Your task to perform on an android device: Open Google Maps Image 0: 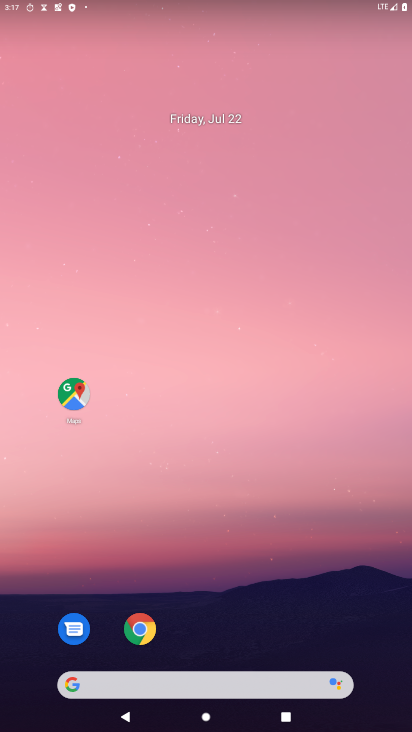
Step 0: drag from (186, 661) to (145, 12)
Your task to perform on an android device: Open Google Maps Image 1: 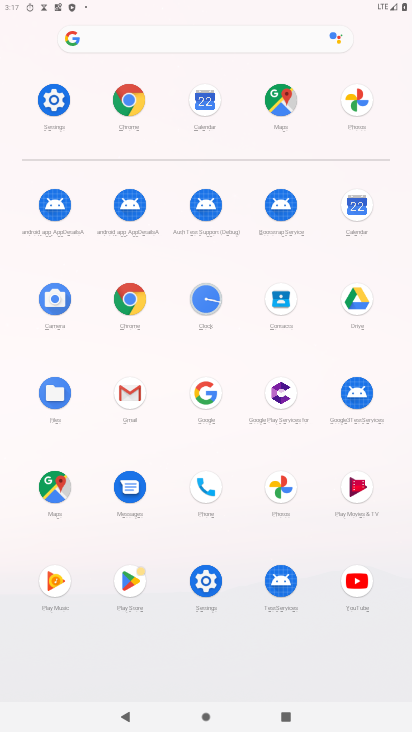
Step 1: click (61, 486)
Your task to perform on an android device: Open Google Maps Image 2: 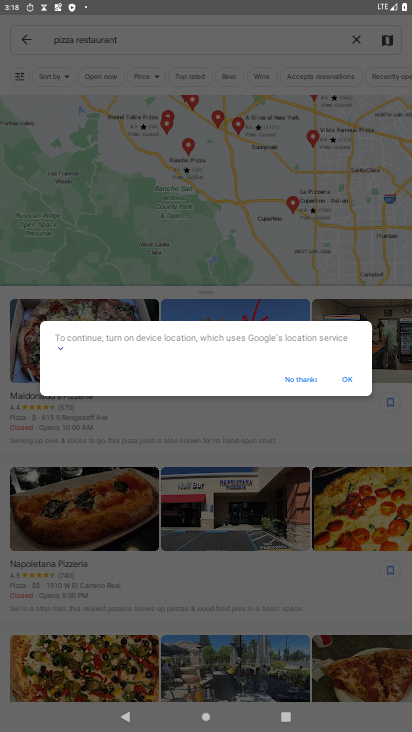
Step 2: click (309, 377)
Your task to perform on an android device: Open Google Maps Image 3: 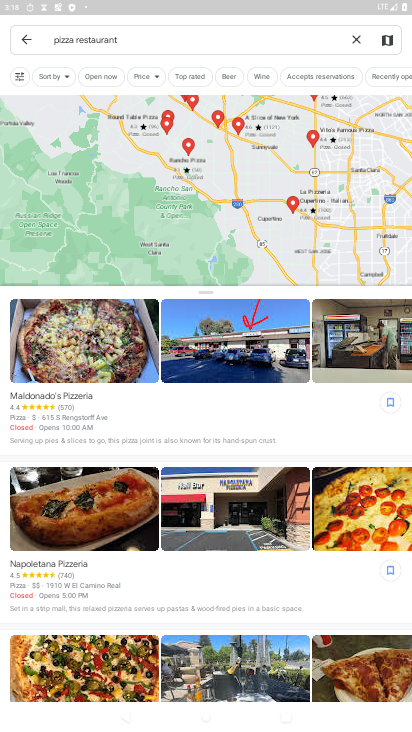
Step 3: task complete